Your task to perform on an android device: change the upload size in google photos Image 0: 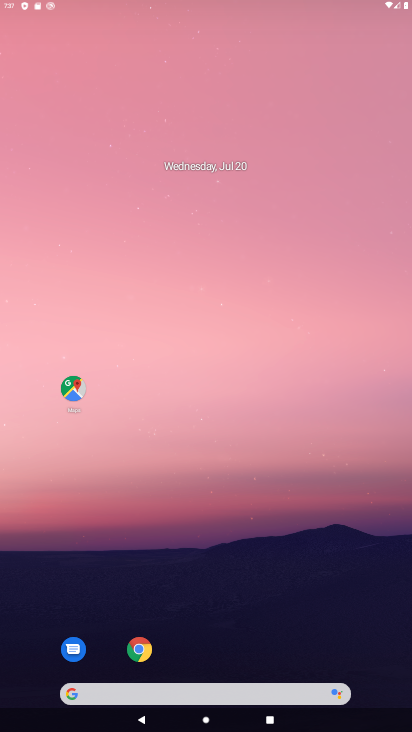
Step 0: drag from (287, 648) to (274, 305)
Your task to perform on an android device: change the upload size in google photos Image 1: 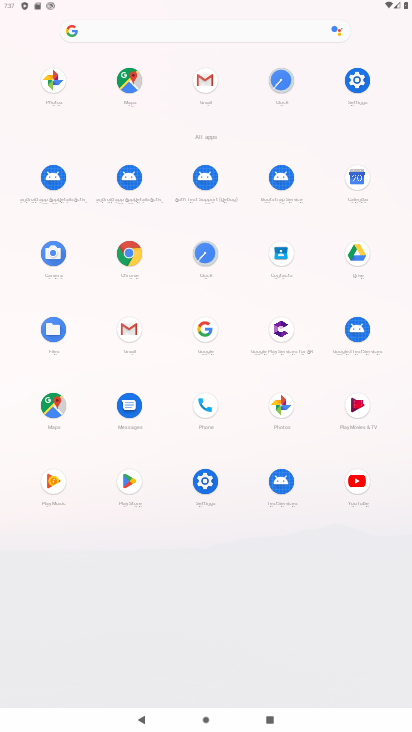
Step 1: click (285, 428)
Your task to perform on an android device: change the upload size in google photos Image 2: 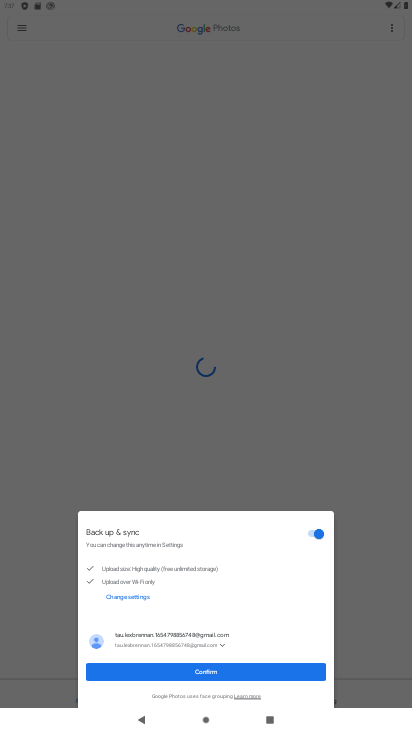
Step 2: click (236, 665)
Your task to perform on an android device: change the upload size in google photos Image 3: 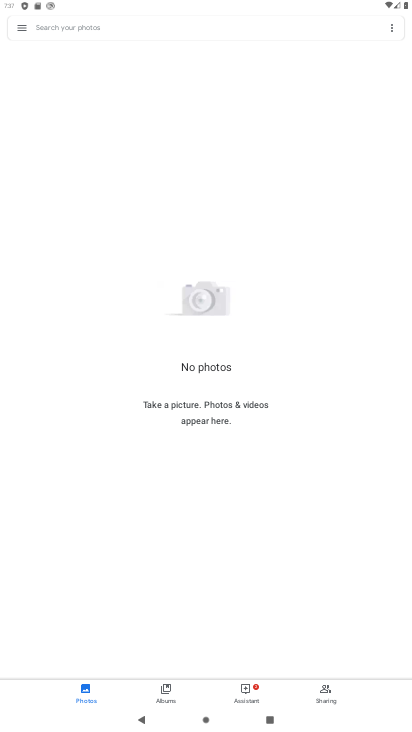
Step 3: click (27, 33)
Your task to perform on an android device: change the upload size in google photos Image 4: 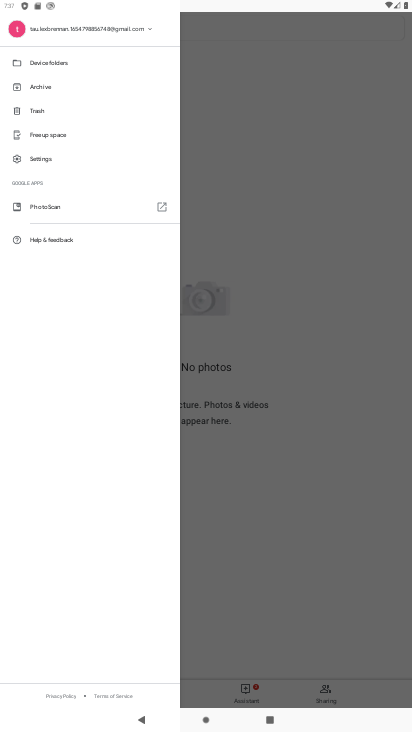
Step 4: click (68, 160)
Your task to perform on an android device: change the upload size in google photos Image 5: 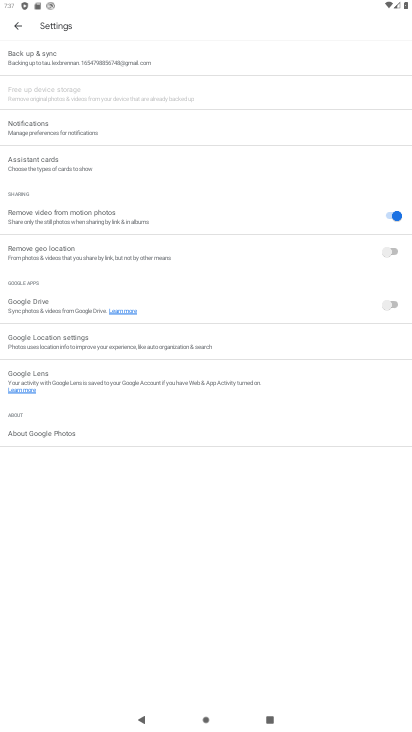
Step 5: task complete